Your task to perform on an android device: open app "PUBG MOBILE" Image 0: 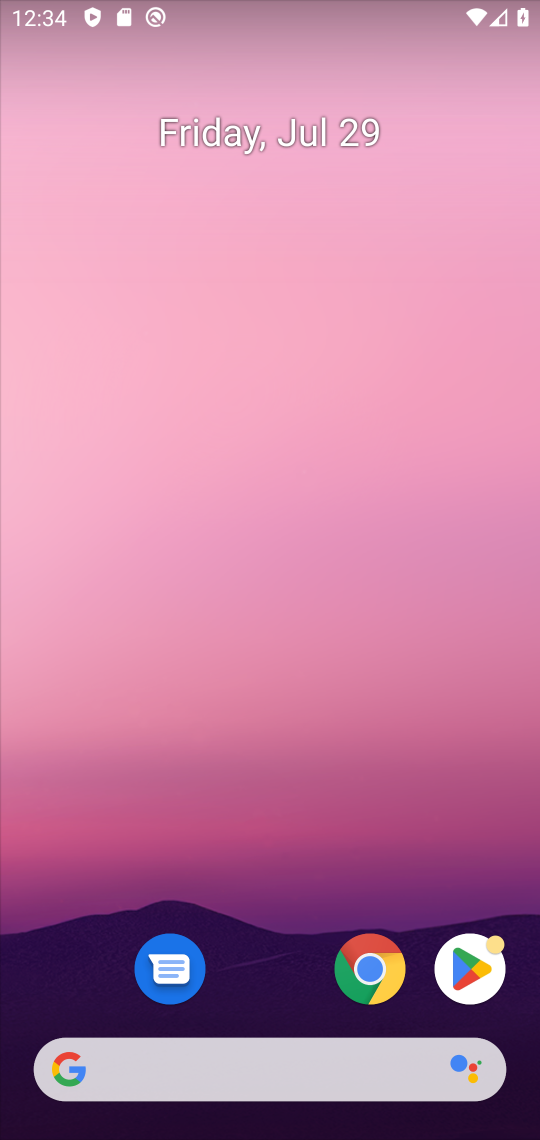
Step 0: press home button
Your task to perform on an android device: open app "PUBG MOBILE" Image 1: 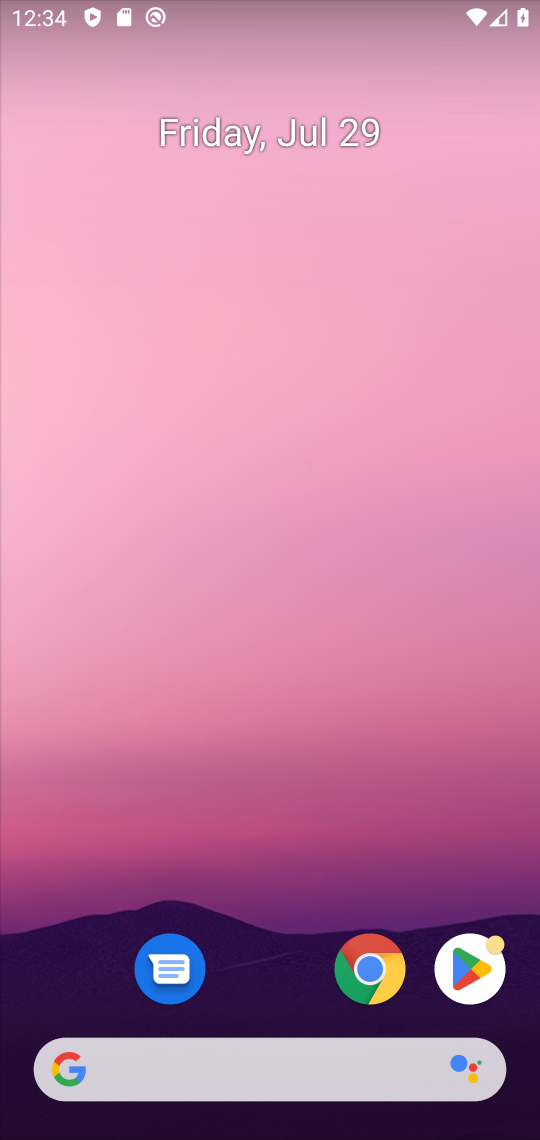
Step 1: click (484, 973)
Your task to perform on an android device: open app "PUBG MOBILE" Image 2: 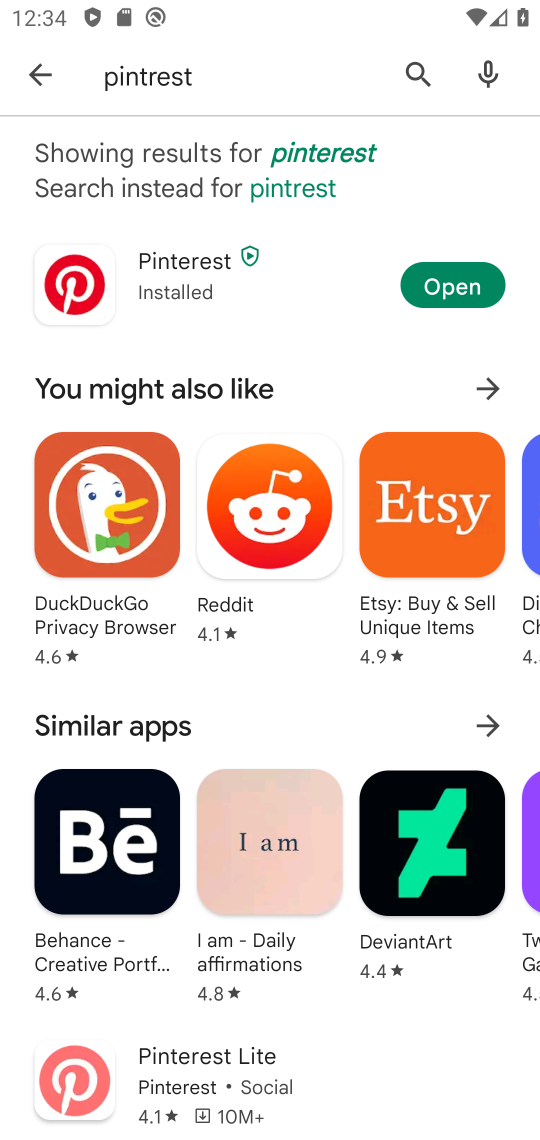
Step 2: click (409, 66)
Your task to perform on an android device: open app "PUBG MOBILE" Image 3: 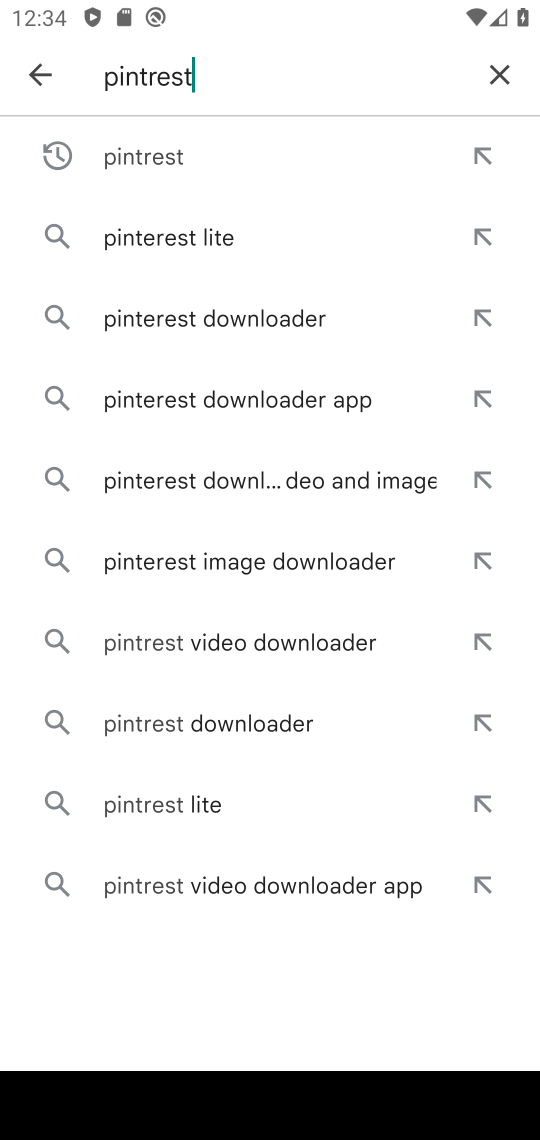
Step 3: click (488, 71)
Your task to perform on an android device: open app "PUBG MOBILE" Image 4: 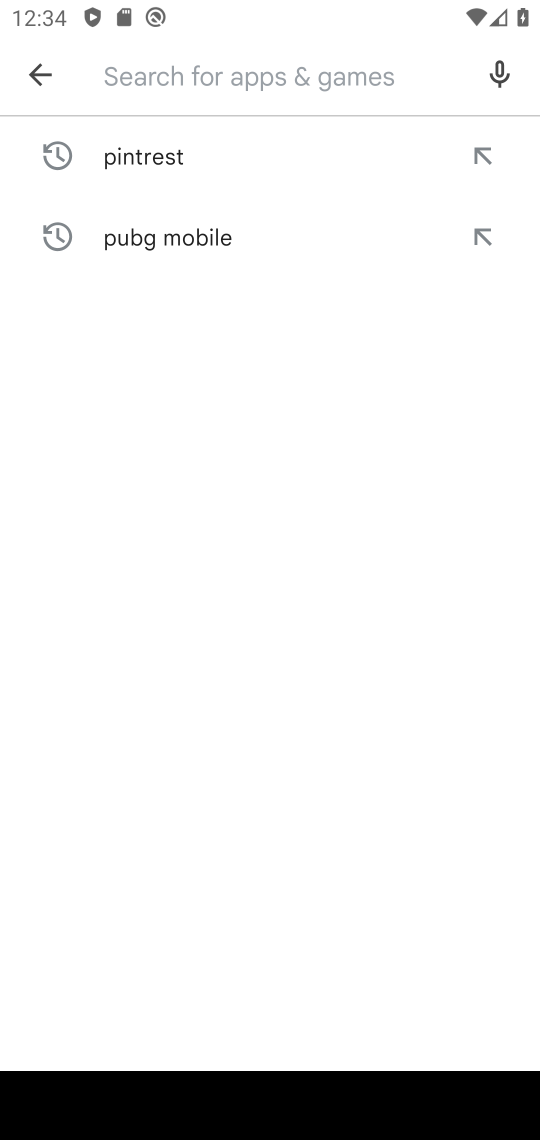
Step 4: click (426, 903)
Your task to perform on an android device: open app "PUBG MOBILE" Image 5: 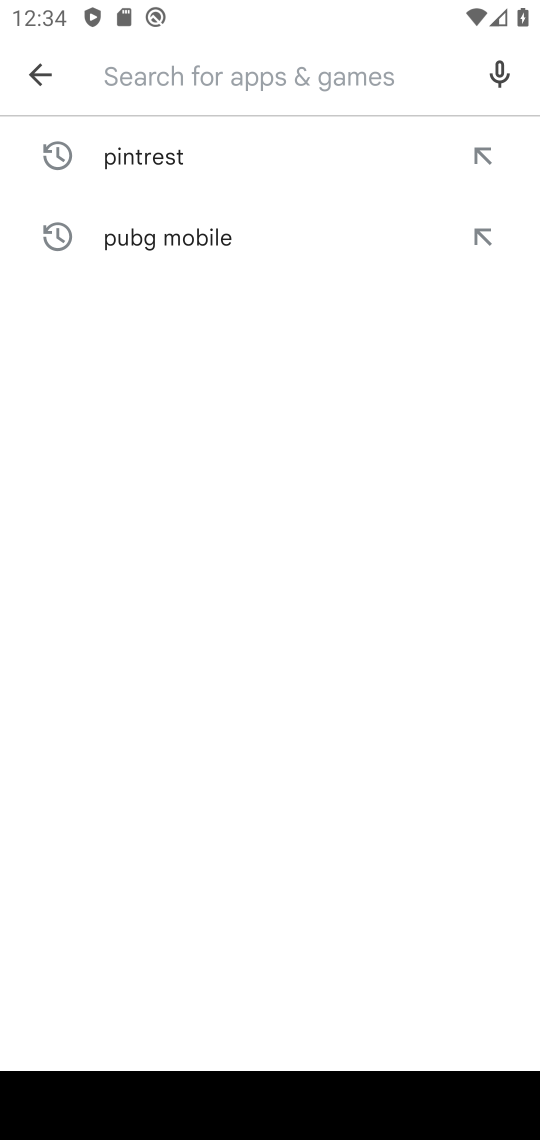
Step 5: click (503, 1100)
Your task to perform on an android device: open app "PUBG MOBILE" Image 6: 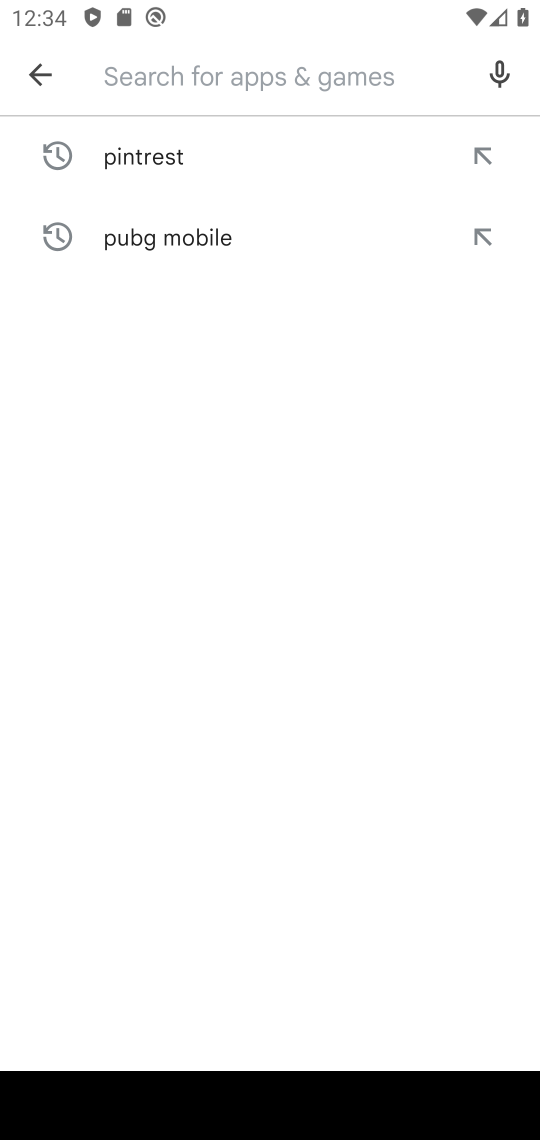
Step 6: click (503, 1100)
Your task to perform on an android device: open app "PUBG MOBILE" Image 7: 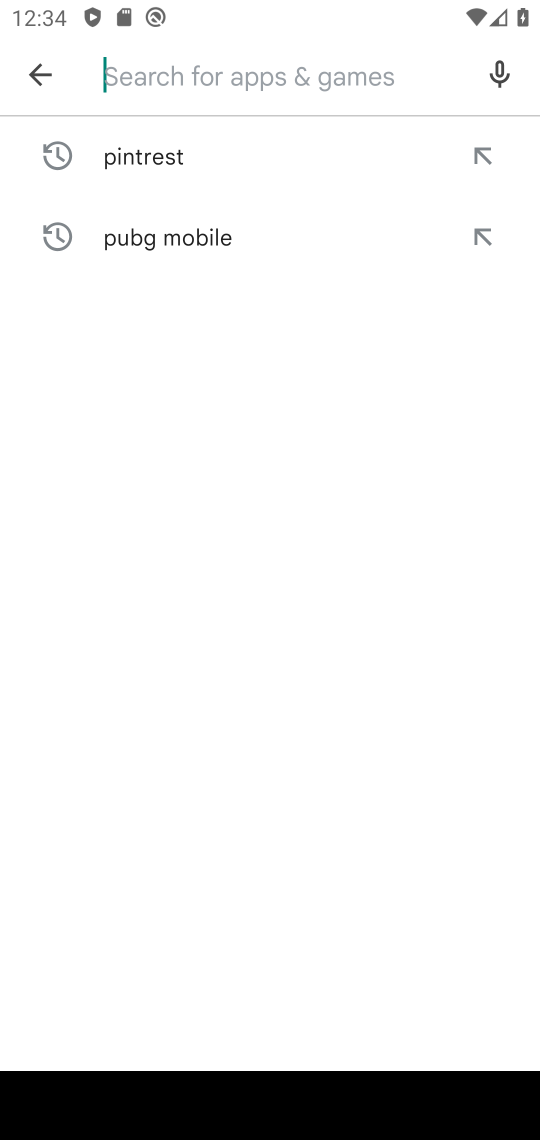
Step 7: drag from (492, 1108) to (486, 1047)
Your task to perform on an android device: open app "PUBG MOBILE" Image 8: 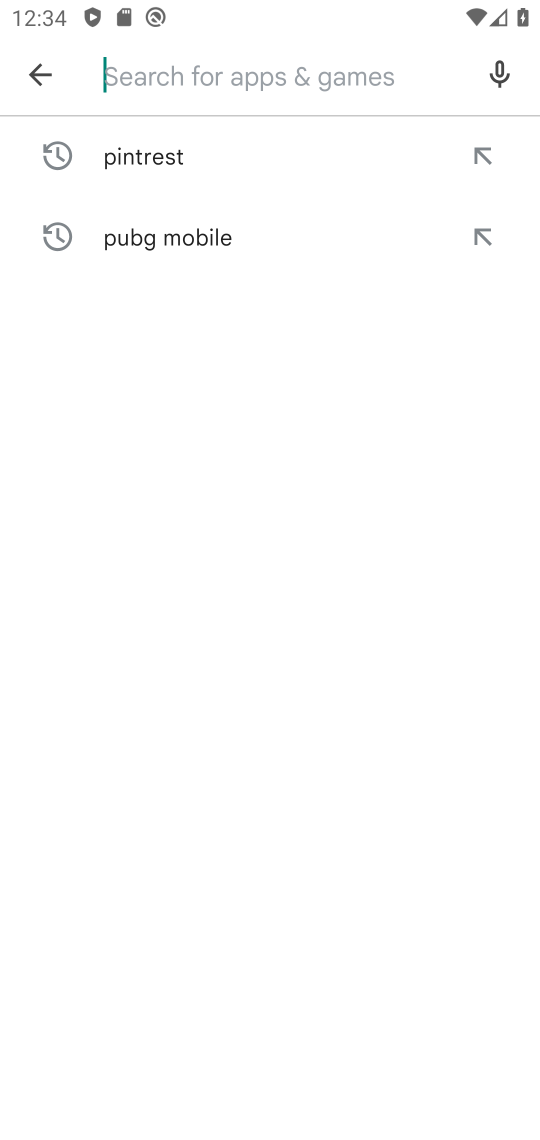
Step 8: click (159, 82)
Your task to perform on an android device: open app "PUBG MOBILE" Image 9: 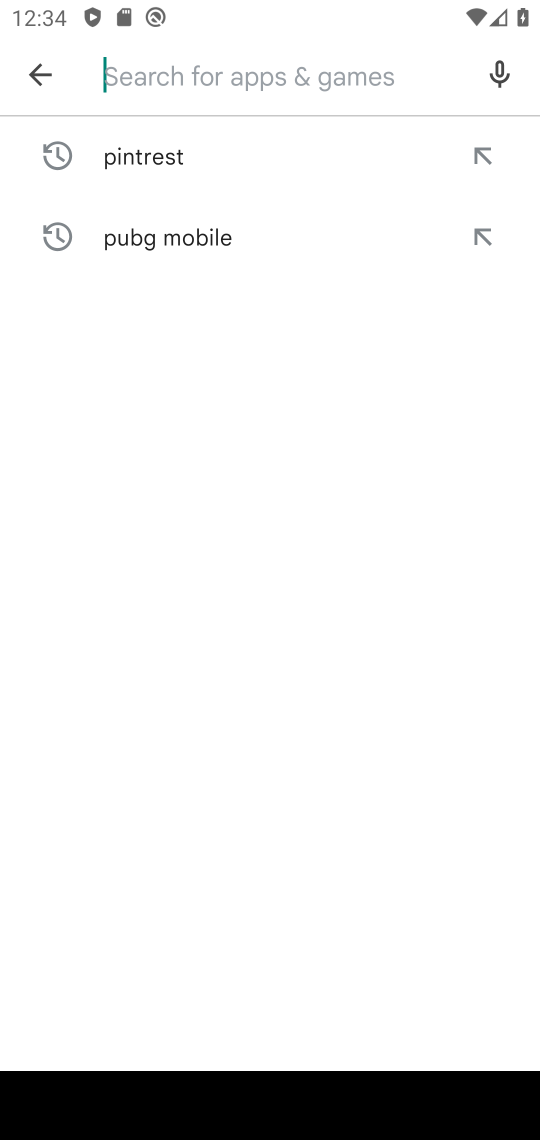
Step 9: drag from (460, 1130) to (492, 1062)
Your task to perform on an android device: open app "PUBG MOBILE" Image 10: 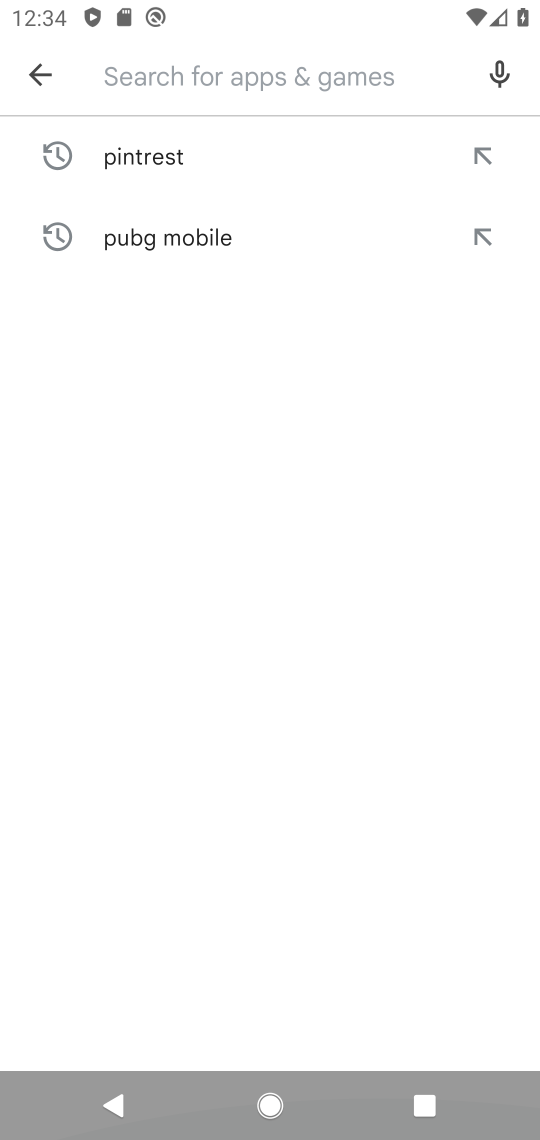
Step 10: click (500, 1107)
Your task to perform on an android device: open app "PUBG MOBILE" Image 11: 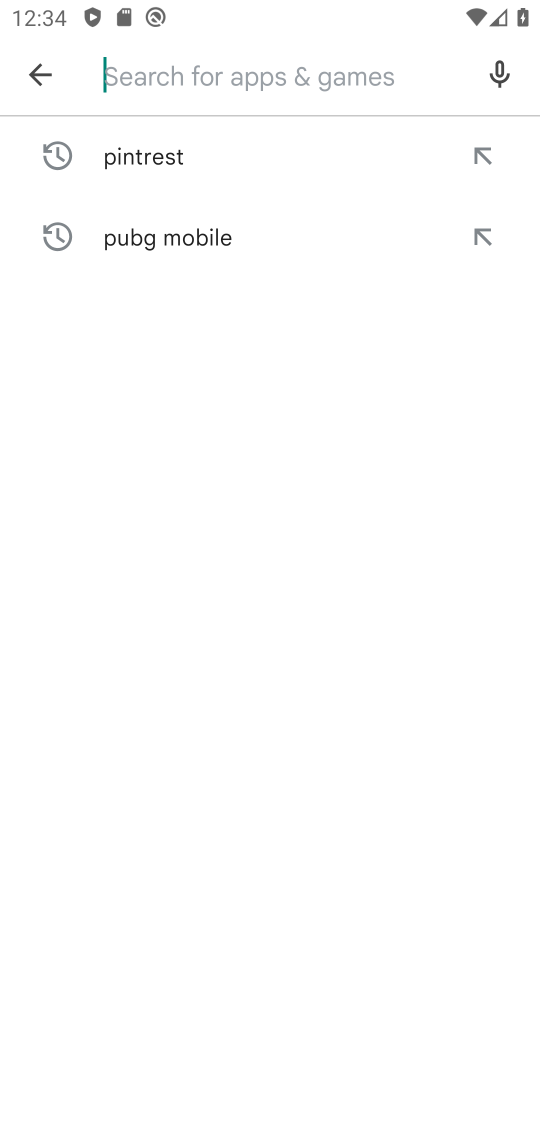
Step 11: type "pubg"
Your task to perform on an android device: open app "PUBG MOBILE" Image 12: 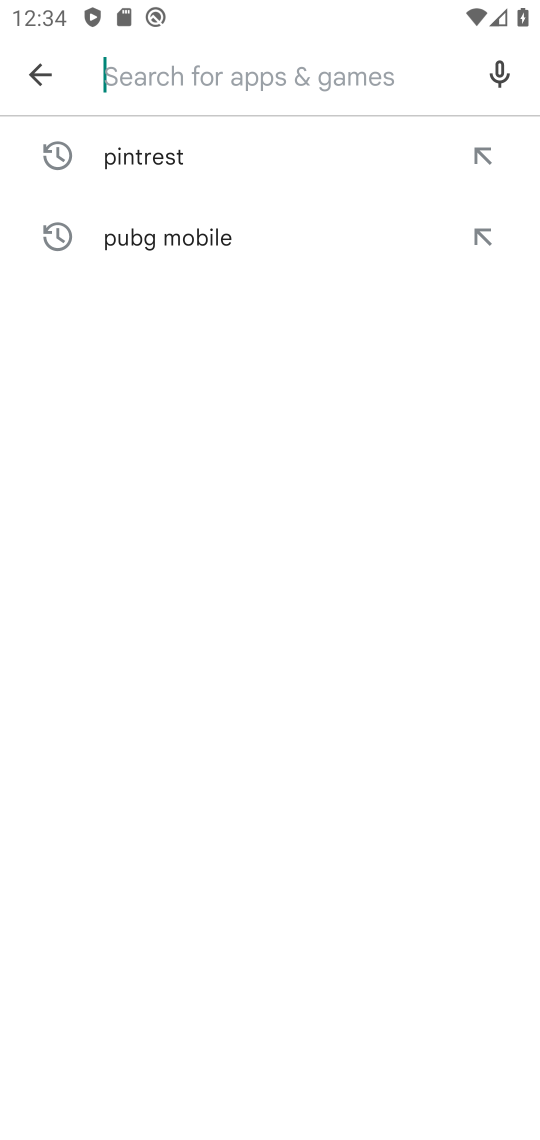
Step 12: click (123, 239)
Your task to perform on an android device: open app "PUBG MOBILE" Image 13: 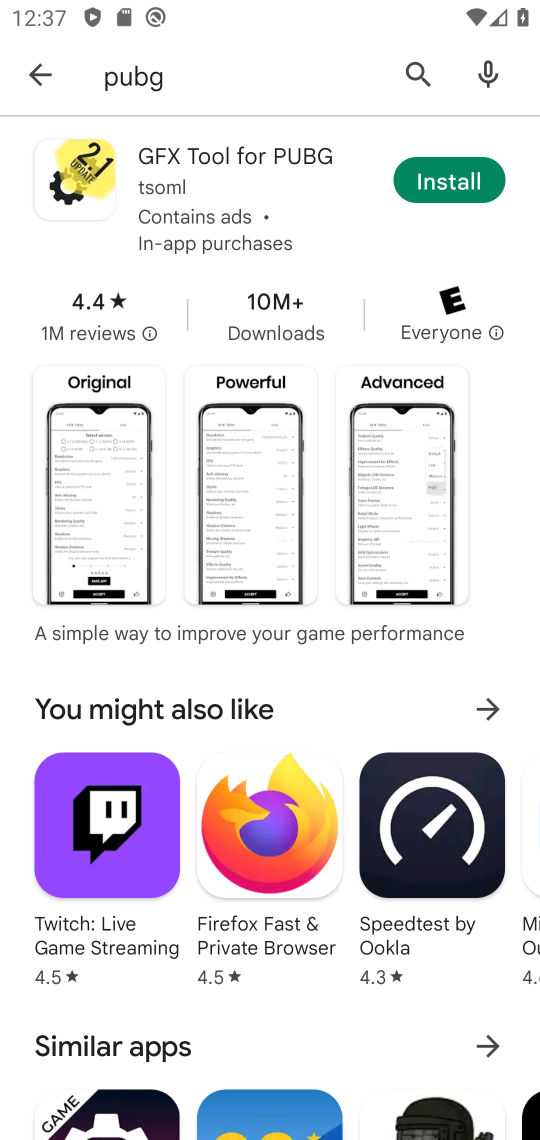
Step 13: task complete